Your task to perform on an android device: Open notification settings Image 0: 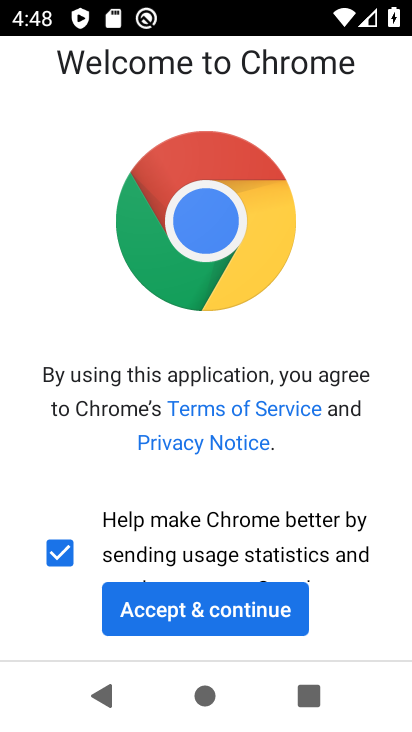
Step 0: press home button
Your task to perform on an android device: Open notification settings Image 1: 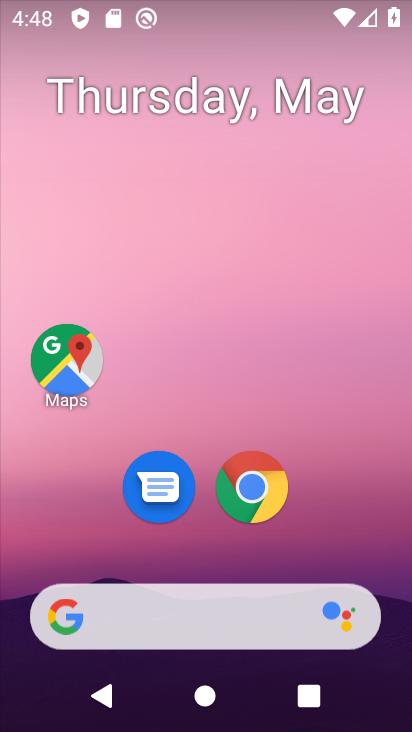
Step 1: drag from (329, 438) to (315, 72)
Your task to perform on an android device: Open notification settings Image 2: 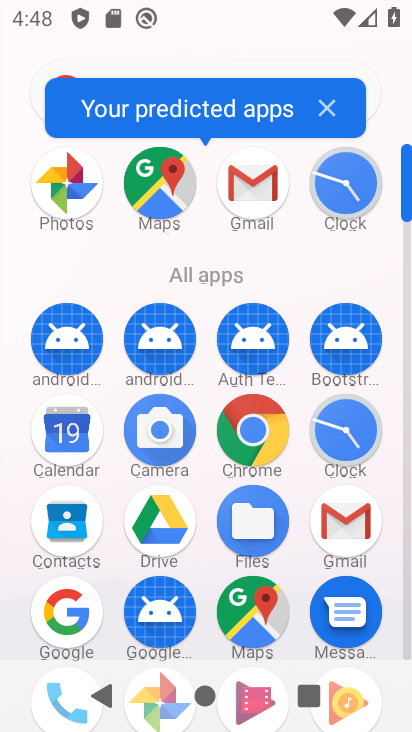
Step 2: drag from (199, 394) to (235, 170)
Your task to perform on an android device: Open notification settings Image 3: 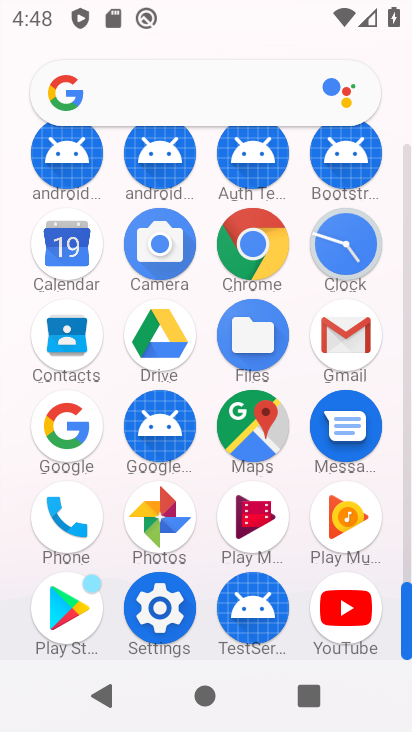
Step 3: click (168, 585)
Your task to perform on an android device: Open notification settings Image 4: 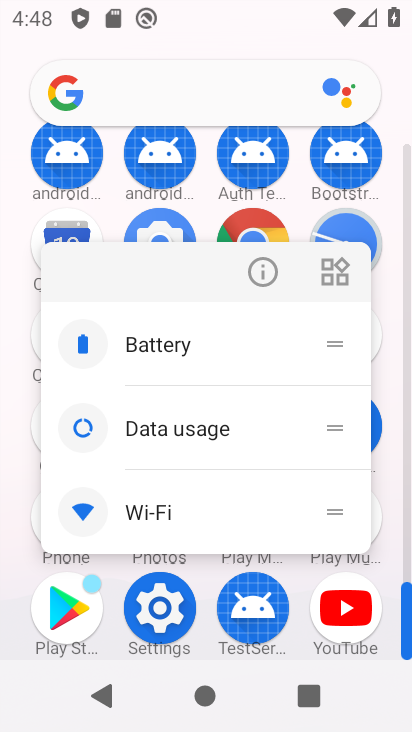
Step 4: click (163, 602)
Your task to perform on an android device: Open notification settings Image 5: 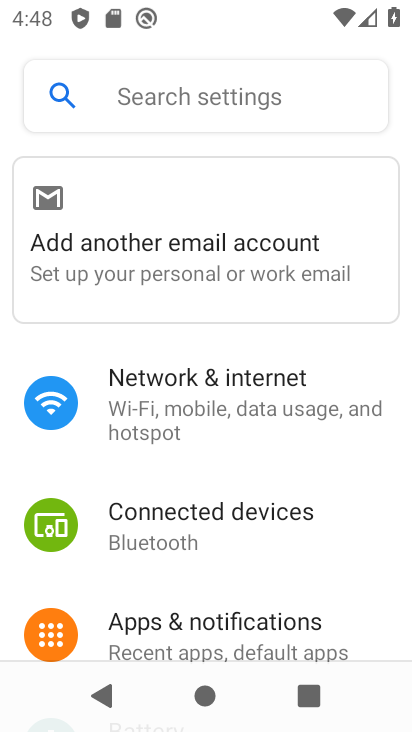
Step 5: click (227, 629)
Your task to perform on an android device: Open notification settings Image 6: 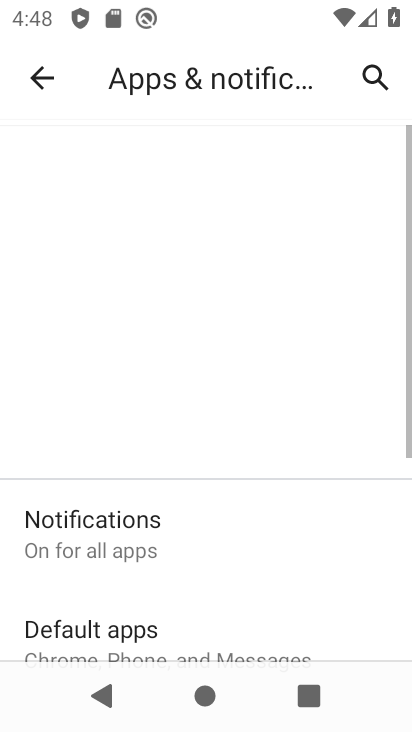
Step 6: drag from (245, 557) to (259, 371)
Your task to perform on an android device: Open notification settings Image 7: 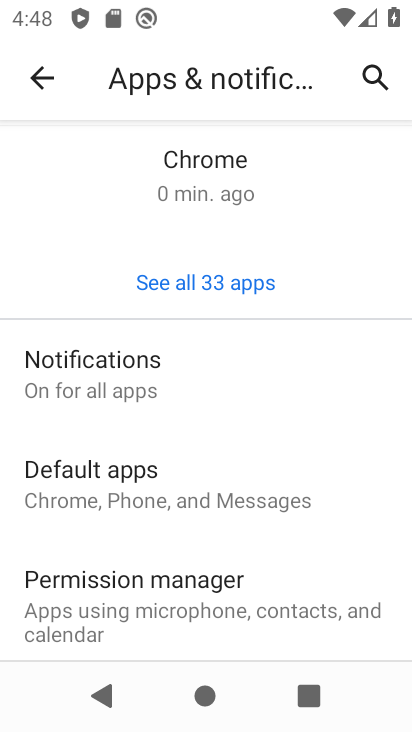
Step 7: click (228, 376)
Your task to perform on an android device: Open notification settings Image 8: 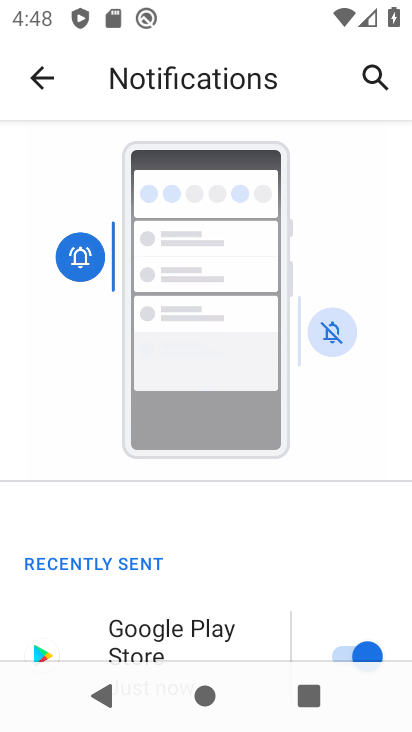
Step 8: task complete